Your task to perform on an android device: choose inbox layout in the gmail app Image 0: 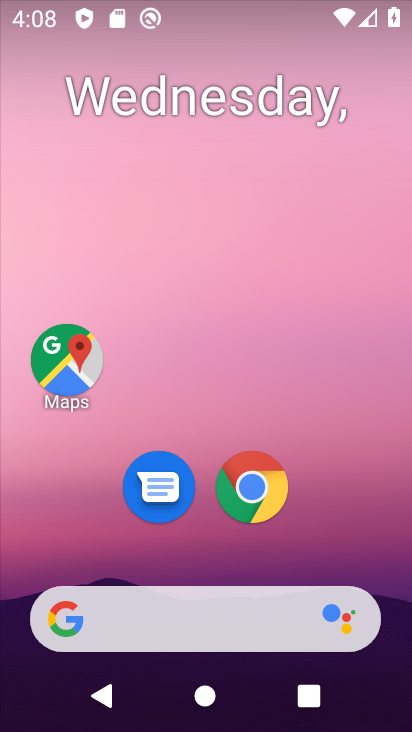
Step 0: press home button
Your task to perform on an android device: choose inbox layout in the gmail app Image 1: 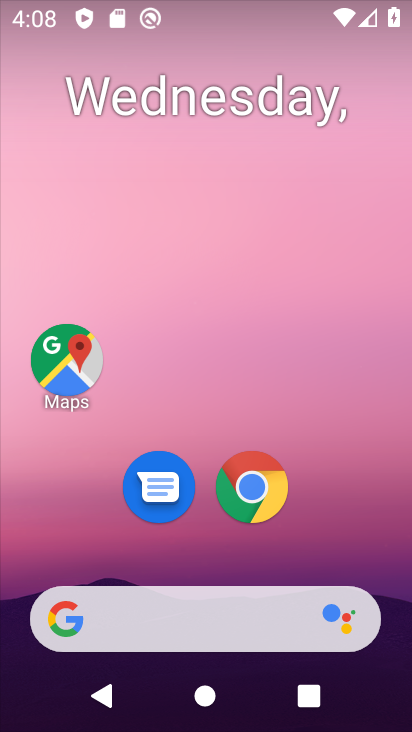
Step 1: drag from (201, 551) to (167, 30)
Your task to perform on an android device: choose inbox layout in the gmail app Image 2: 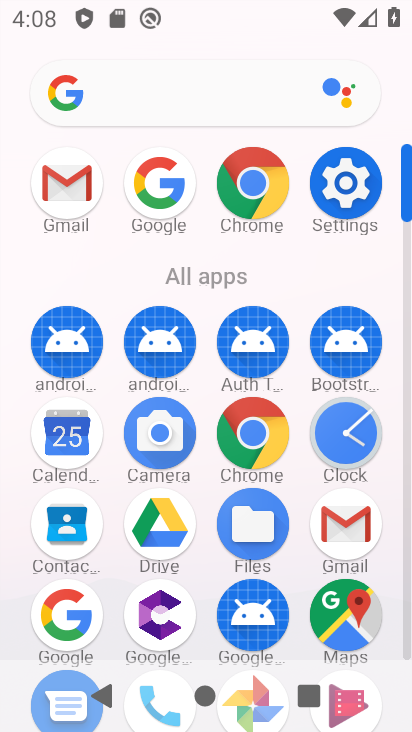
Step 2: click (340, 509)
Your task to perform on an android device: choose inbox layout in the gmail app Image 3: 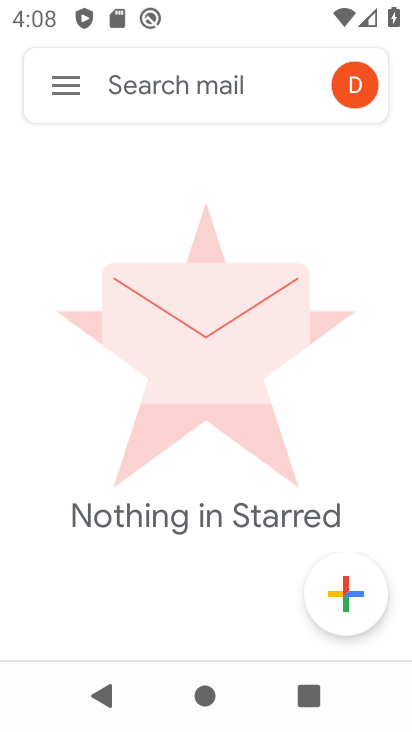
Step 3: click (60, 83)
Your task to perform on an android device: choose inbox layout in the gmail app Image 4: 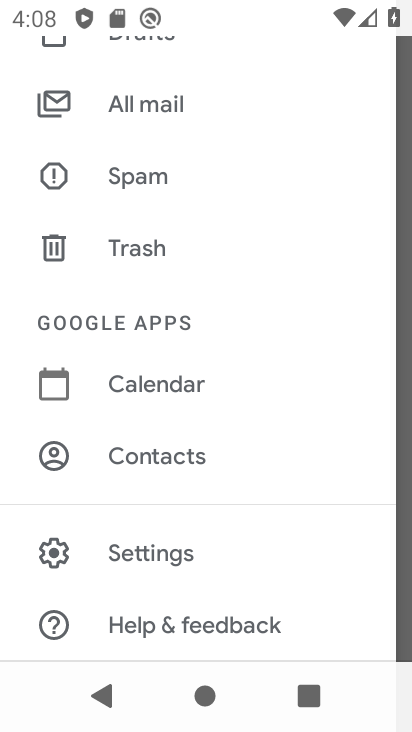
Step 4: drag from (89, 136) to (101, 604)
Your task to perform on an android device: choose inbox layout in the gmail app Image 5: 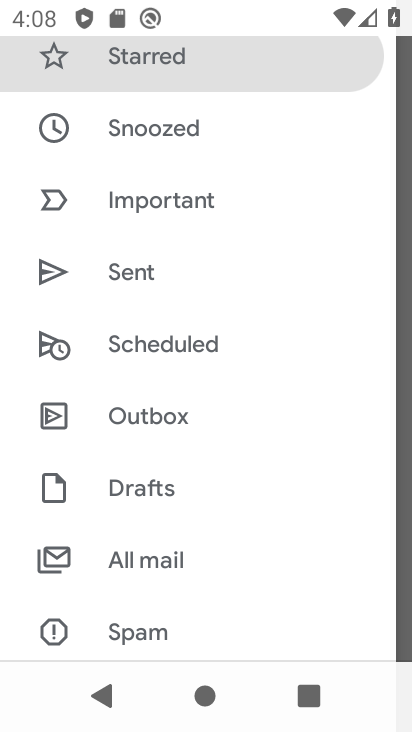
Step 5: drag from (95, 619) to (180, 53)
Your task to perform on an android device: choose inbox layout in the gmail app Image 6: 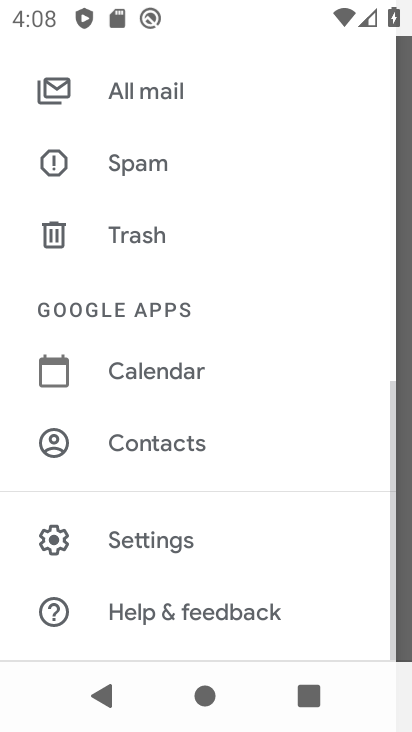
Step 6: click (98, 536)
Your task to perform on an android device: choose inbox layout in the gmail app Image 7: 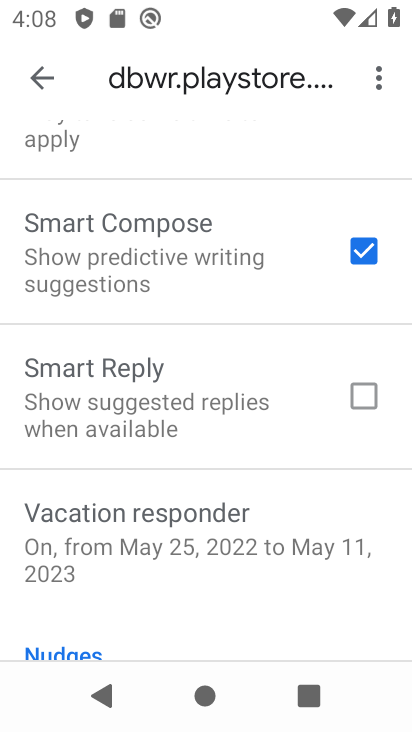
Step 7: drag from (184, 144) to (235, 702)
Your task to perform on an android device: choose inbox layout in the gmail app Image 8: 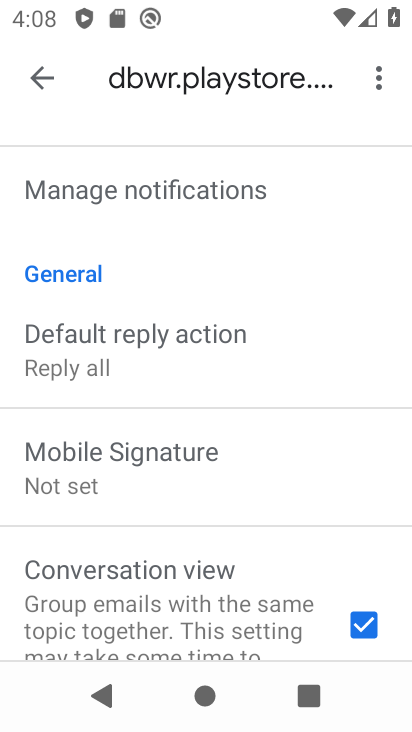
Step 8: drag from (159, 201) to (184, 693)
Your task to perform on an android device: choose inbox layout in the gmail app Image 9: 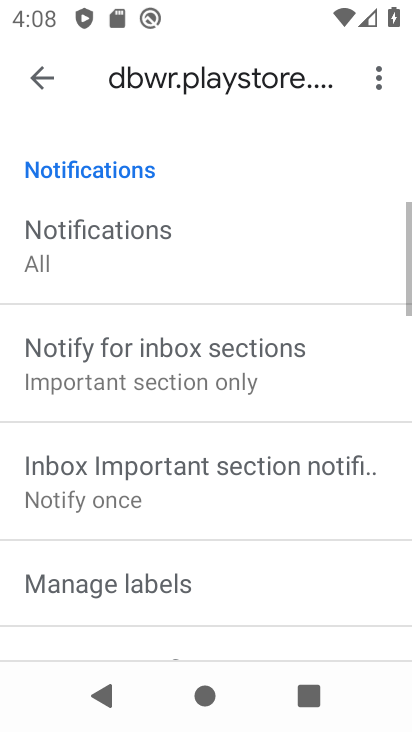
Step 9: drag from (125, 264) to (142, 590)
Your task to perform on an android device: choose inbox layout in the gmail app Image 10: 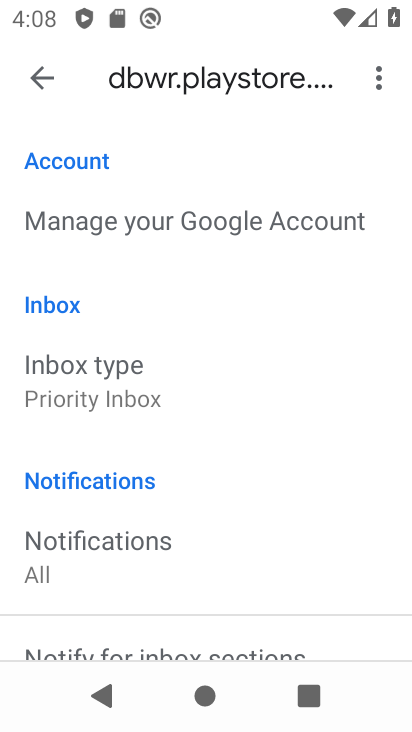
Step 10: click (144, 372)
Your task to perform on an android device: choose inbox layout in the gmail app Image 11: 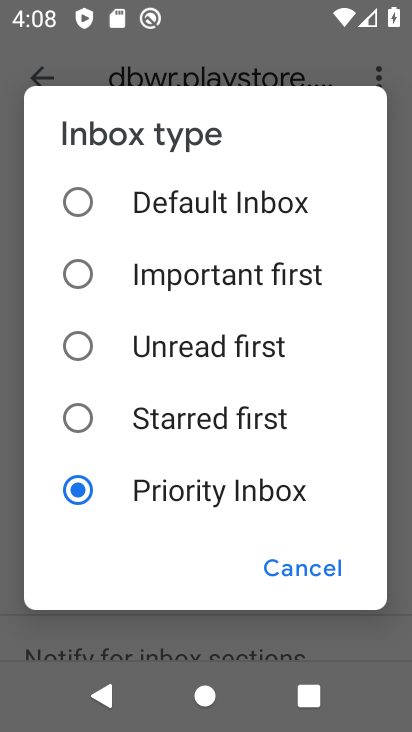
Step 11: click (81, 195)
Your task to perform on an android device: choose inbox layout in the gmail app Image 12: 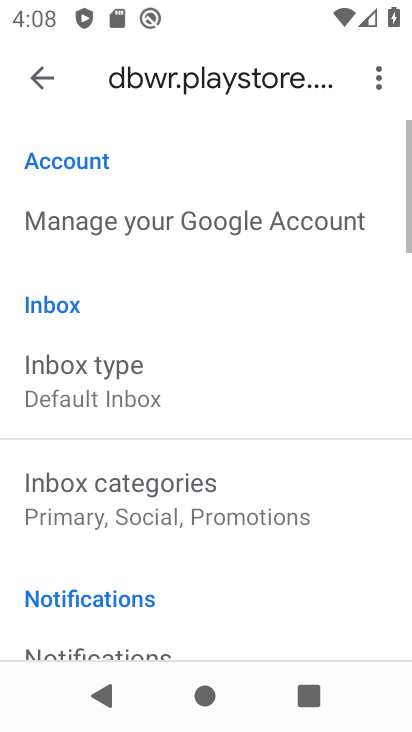
Step 12: task complete